Your task to perform on an android device: Turn off the flashlight Image 0: 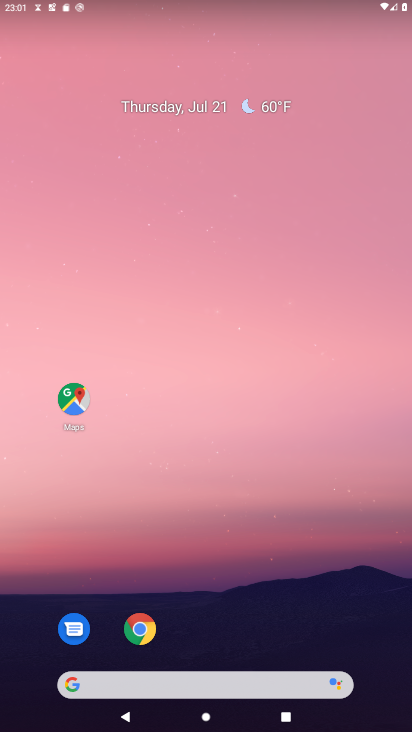
Step 0: drag from (216, 641) to (242, 70)
Your task to perform on an android device: Turn off the flashlight Image 1: 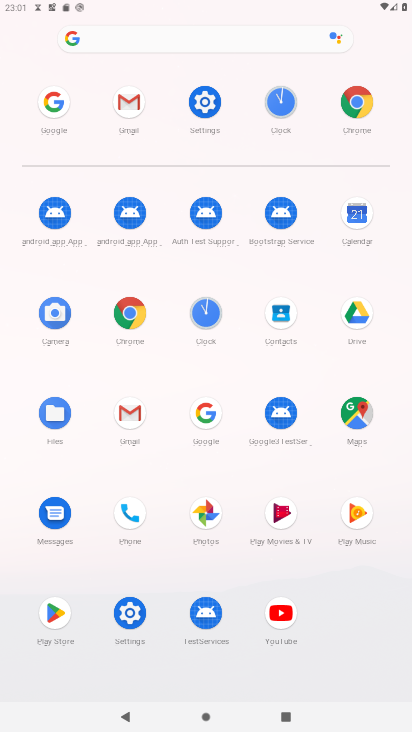
Step 1: click (200, 109)
Your task to perform on an android device: Turn off the flashlight Image 2: 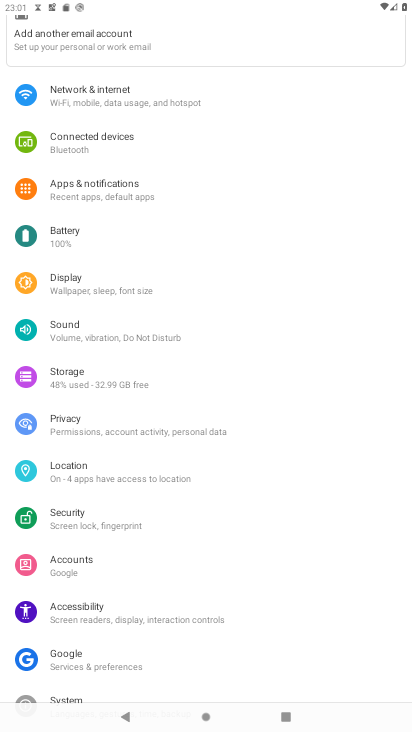
Step 2: task complete